Your task to perform on an android device: Open eBay Image 0: 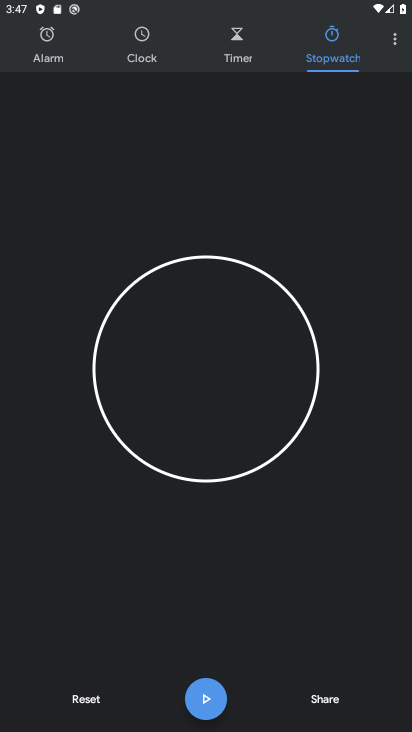
Step 0: press back button
Your task to perform on an android device: Open eBay Image 1: 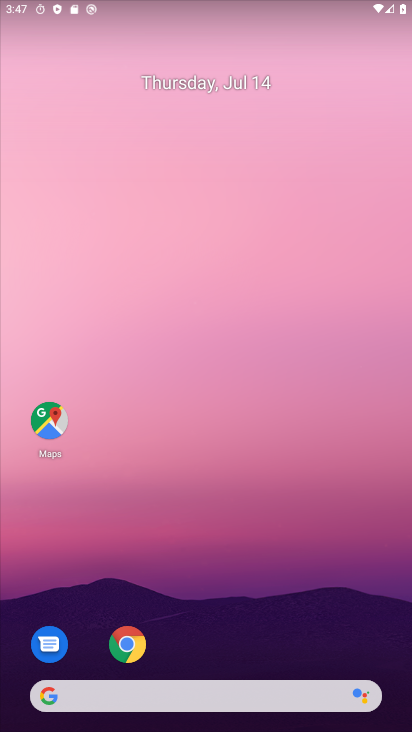
Step 1: click (137, 658)
Your task to perform on an android device: Open eBay Image 2: 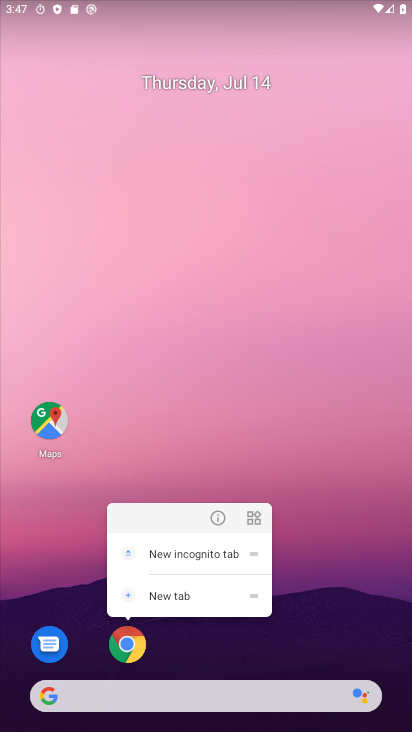
Step 2: click (135, 639)
Your task to perform on an android device: Open eBay Image 3: 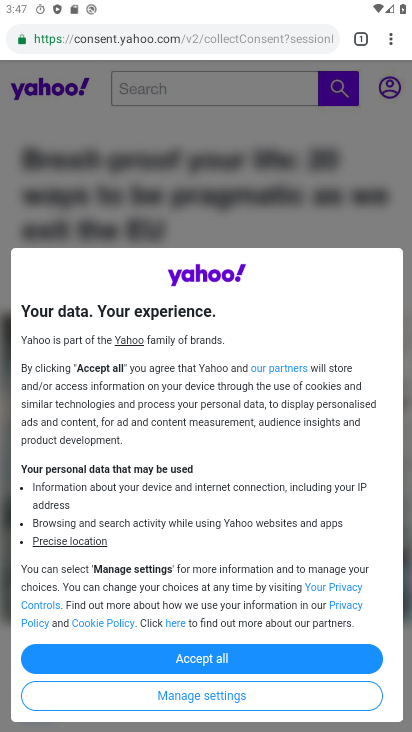
Step 3: click (356, 41)
Your task to perform on an android device: Open eBay Image 4: 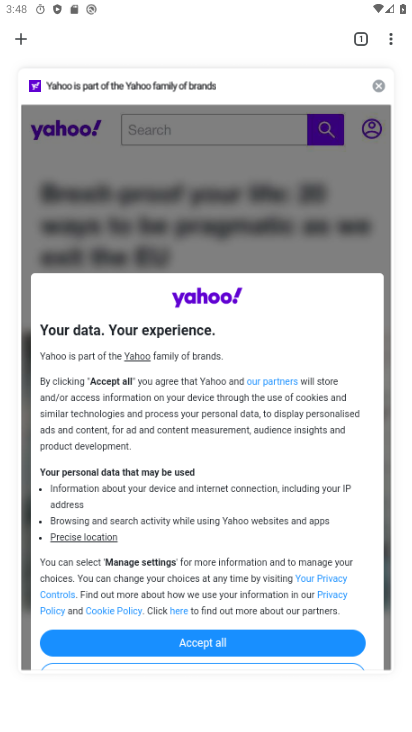
Step 4: click (17, 39)
Your task to perform on an android device: Open eBay Image 5: 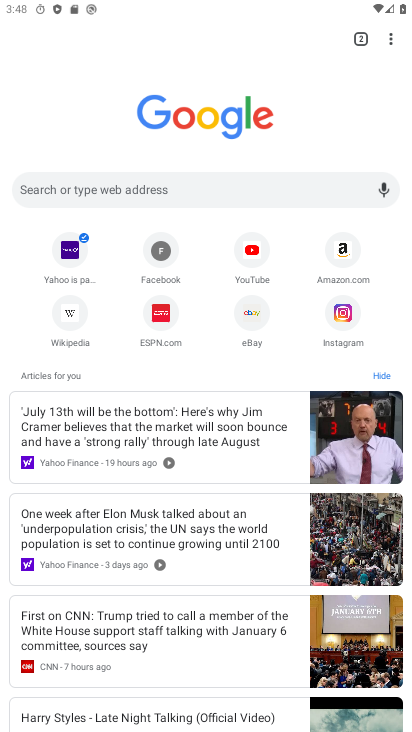
Step 5: click (246, 313)
Your task to perform on an android device: Open eBay Image 6: 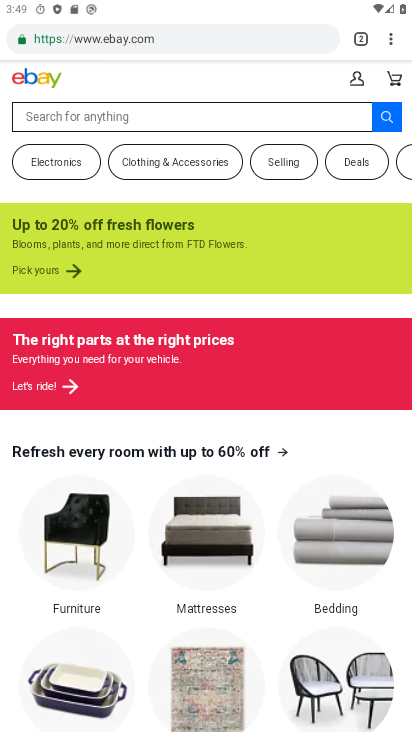
Step 6: task complete